Your task to perform on an android device: Empty the shopping cart on ebay. Search for "sony triple a" on ebay, select the first entry, add it to the cart, then select checkout. Image 0: 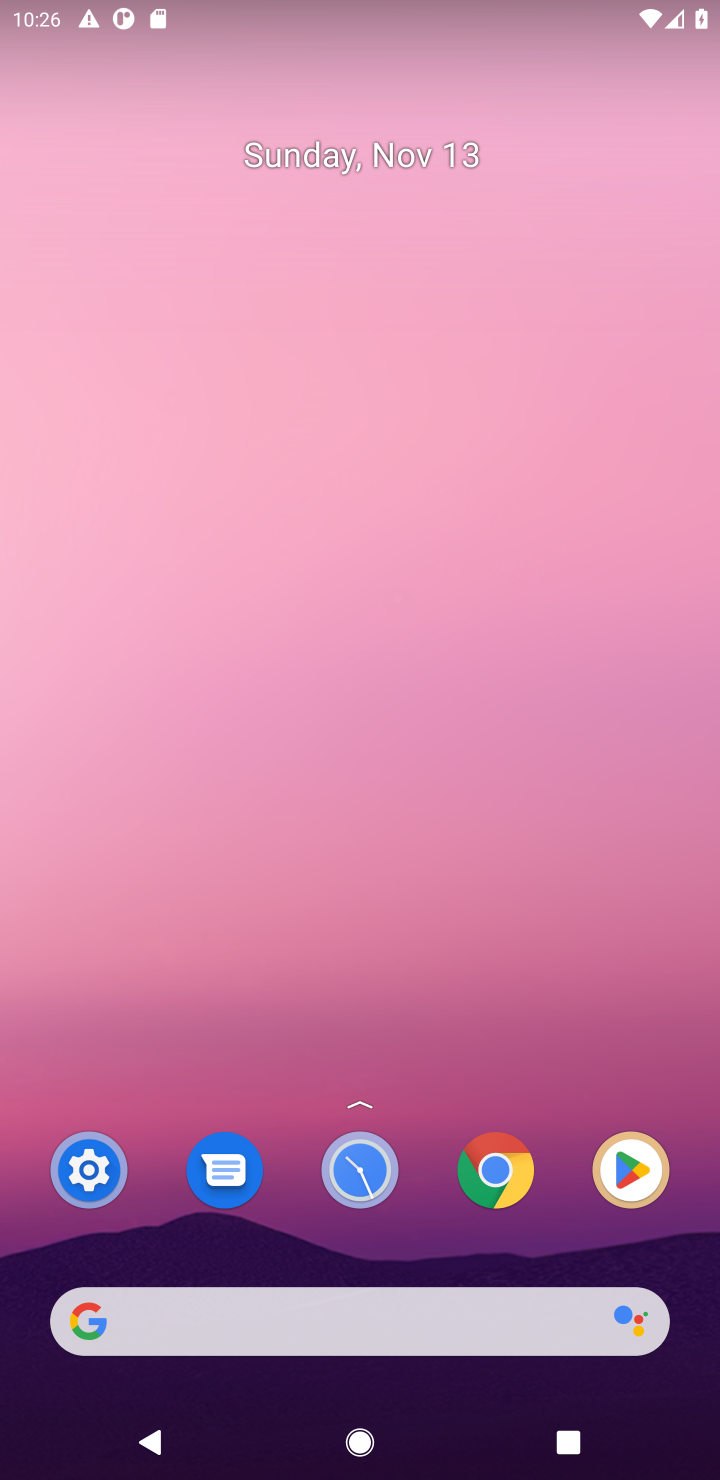
Step 0: click (305, 1344)
Your task to perform on an android device: Empty the shopping cart on ebay. Search for "sony triple a" on ebay, select the first entry, add it to the cart, then select checkout. Image 1: 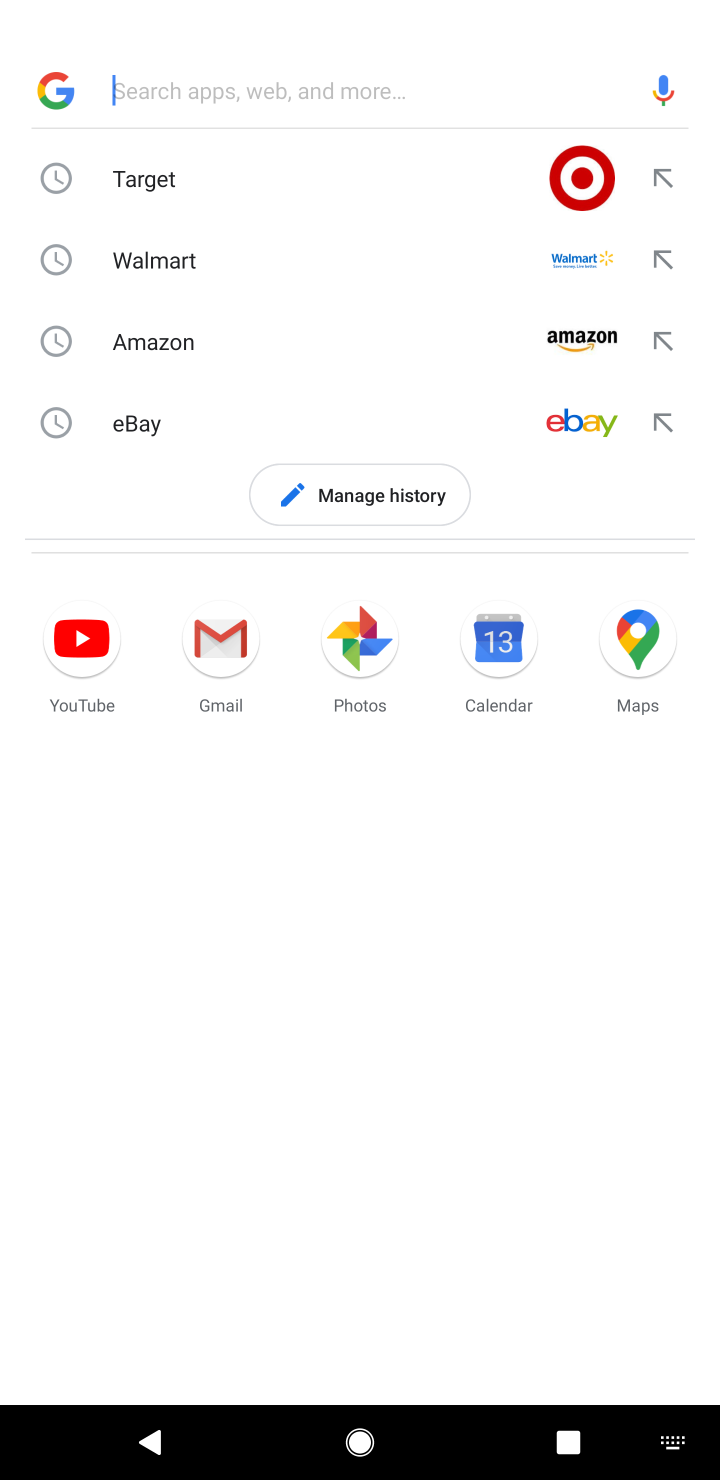
Step 1: click (197, 426)
Your task to perform on an android device: Empty the shopping cart on ebay. Search for "sony triple a" on ebay, select the first entry, add it to the cart, then select checkout. Image 2: 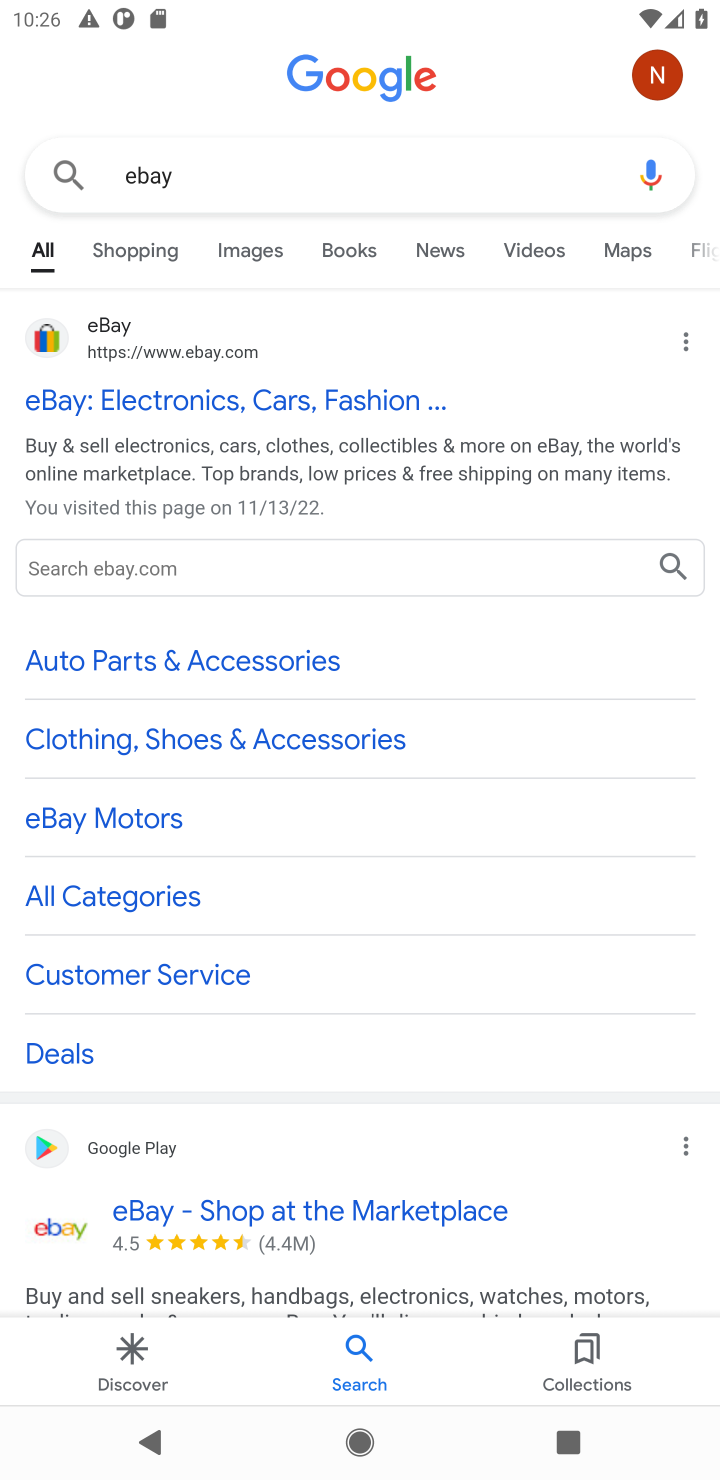
Step 2: click (197, 426)
Your task to perform on an android device: Empty the shopping cart on ebay. Search for "sony triple a" on ebay, select the first entry, add it to the cart, then select checkout. Image 3: 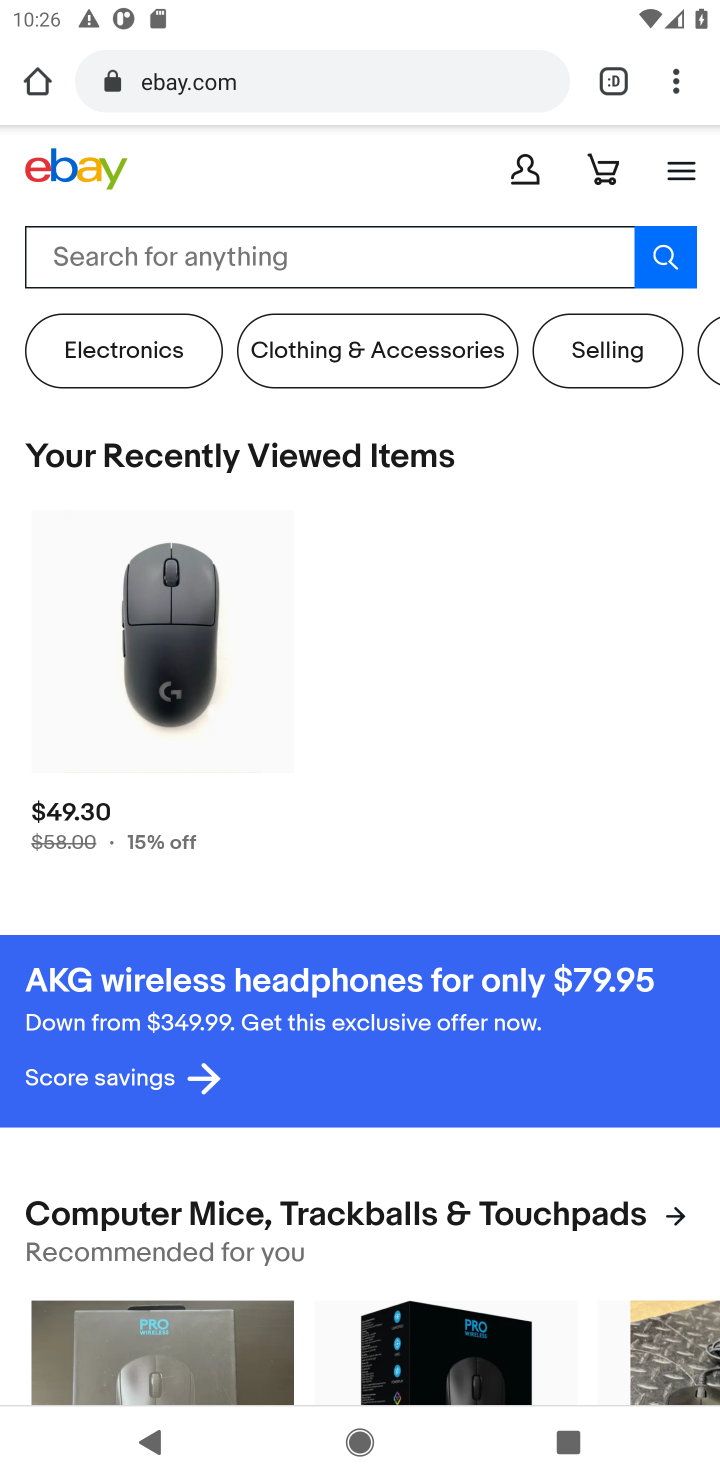
Step 3: task complete